Your task to perform on an android device: turn on data saver in the chrome app Image 0: 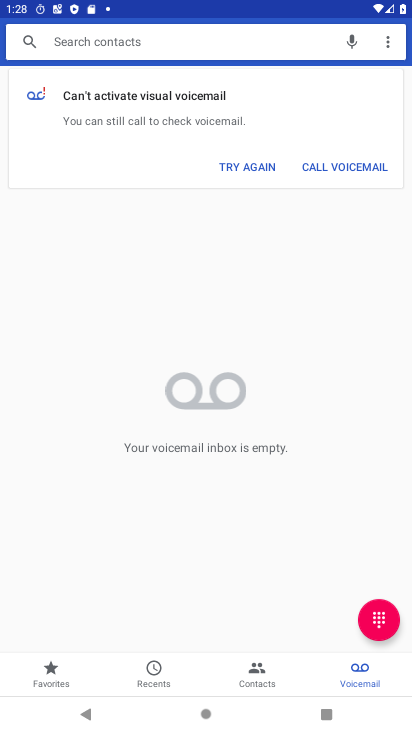
Step 0: press home button
Your task to perform on an android device: turn on data saver in the chrome app Image 1: 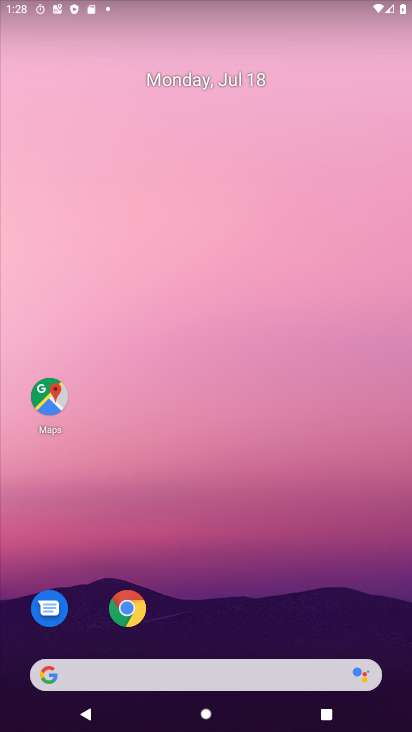
Step 1: click (131, 607)
Your task to perform on an android device: turn on data saver in the chrome app Image 2: 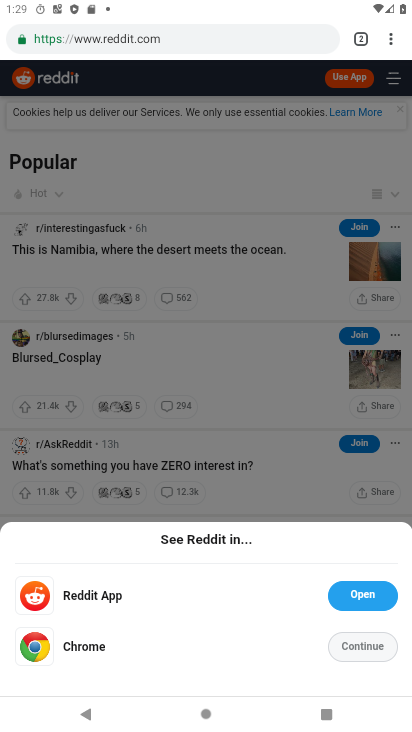
Step 2: click (391, 42)
Your task to perform on an android device: turn on data saver in the chrome app Image 3: 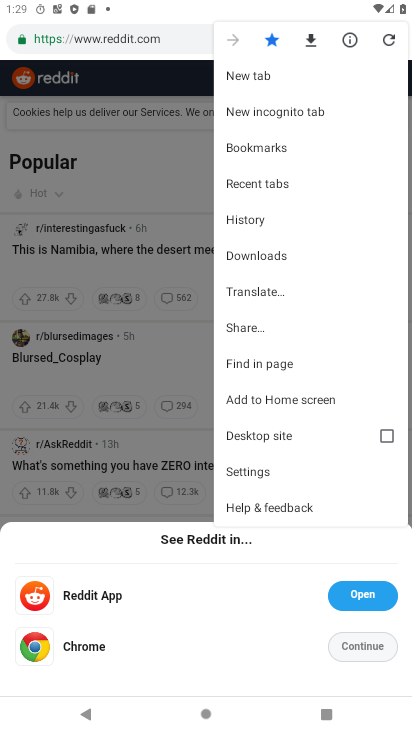
Step 3: click (251, 469)
Your task to perform on an android device: turn on data saver in the chrome app Image 4: 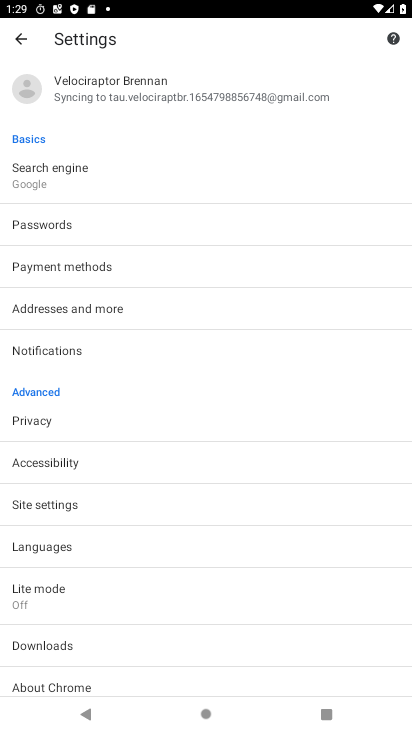
Step 4: click (50, 587)
Your task to perform on an android device: turn on data saver in the chrome app Image 5: 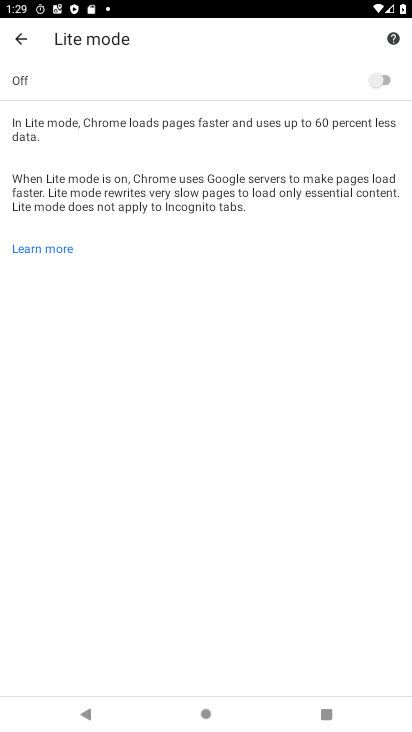
Step 5: click (389, 81)
Your task to perform on an android device: turn on data saver in the chrome app Image 6: 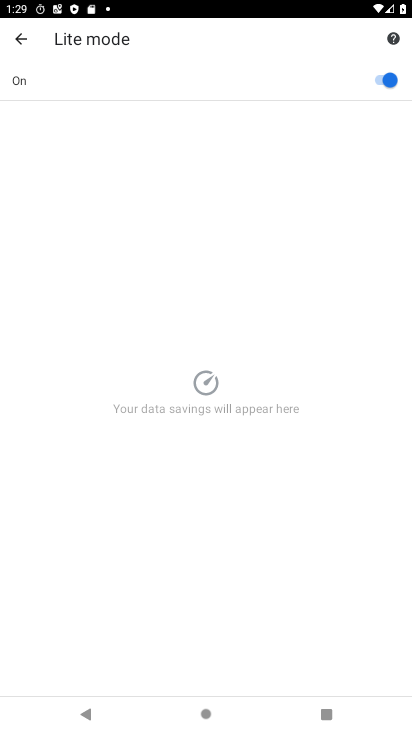
Step 6: task complete